Your task to perform on an android device: Go to privacy settings Image 0: 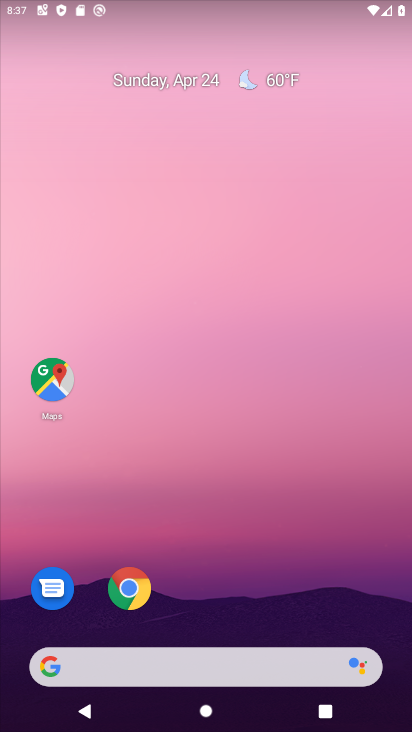
Step 0: drag from (234, 538) to (209, 68)
Your task to perform on an android device: Go to privacy settings Image 1: 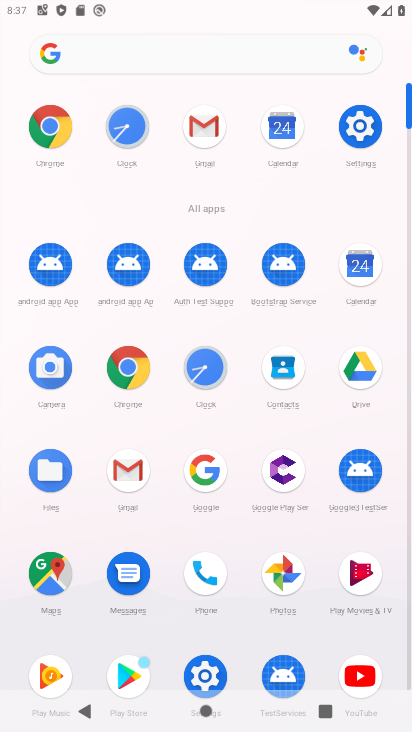
Step 1: click (358, 126)
Your task to perform on an android device: Go to privacy settings Image 2: 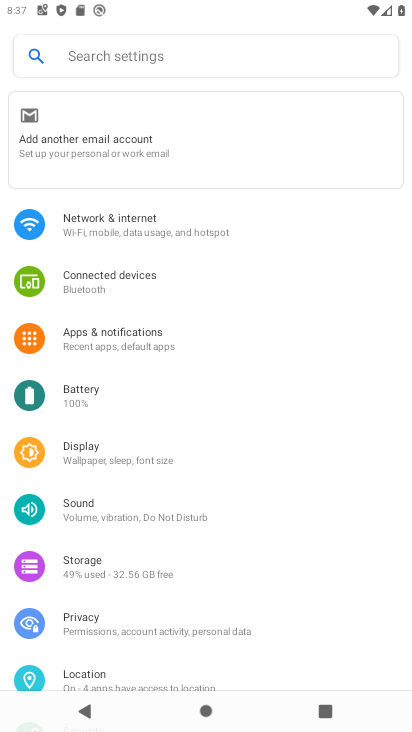
Step 2: click (76, 618)
Your task to perform on an android device: Go to privacy settings Image 3: 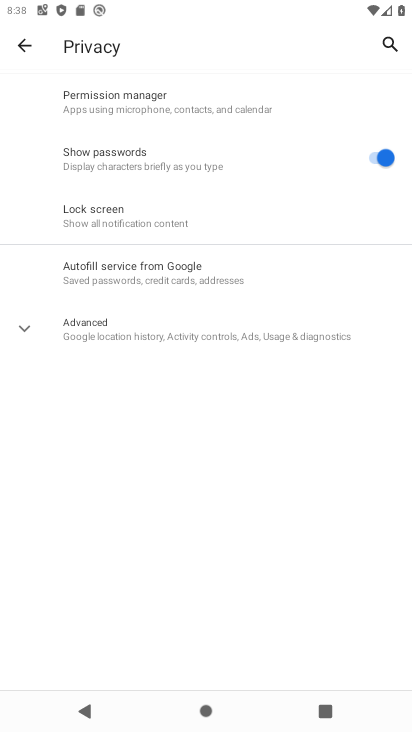
Step 3: task complete